Your task to perform on an android device: check out phone information Image 0: 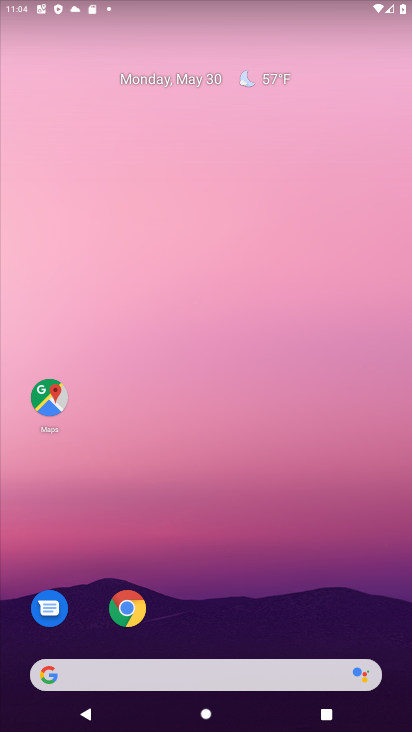
Step 0: drag from (268, 407) to (241, 35)
Your task to perform on an android device: check out phone information Image 1: 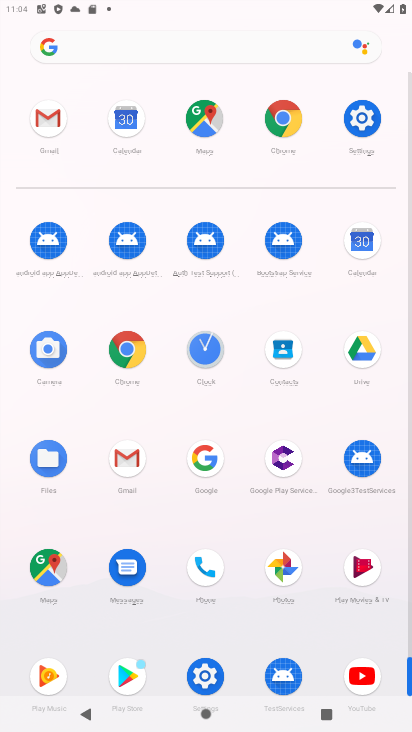
Step 1: drag from (19, 602) to (11, 249)
Your task to perform on an android device: check out phone information Image 2: 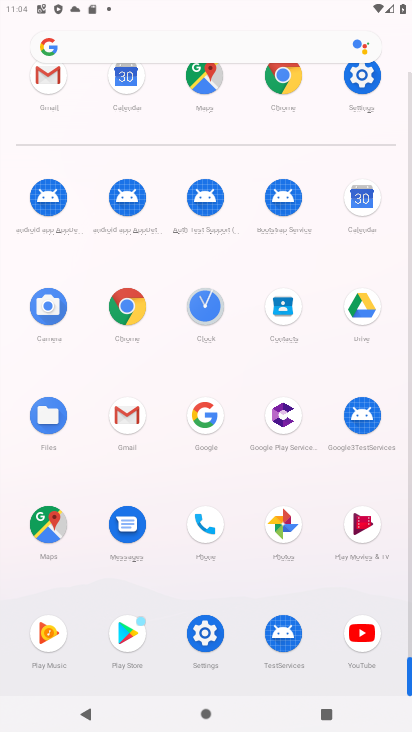
Step 2: click (205, 628)
Your task to perform on an android device: check out phone information Image 3: 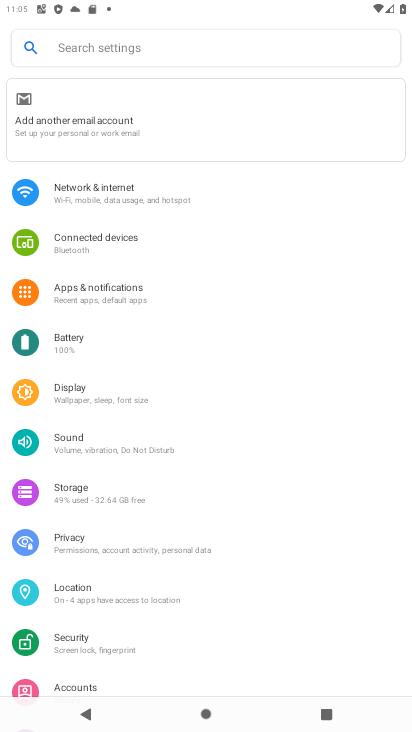
Step 3: drag from (287, 478) to (270, 201)
Your task to perform on an android device: check out phone information Image 4: 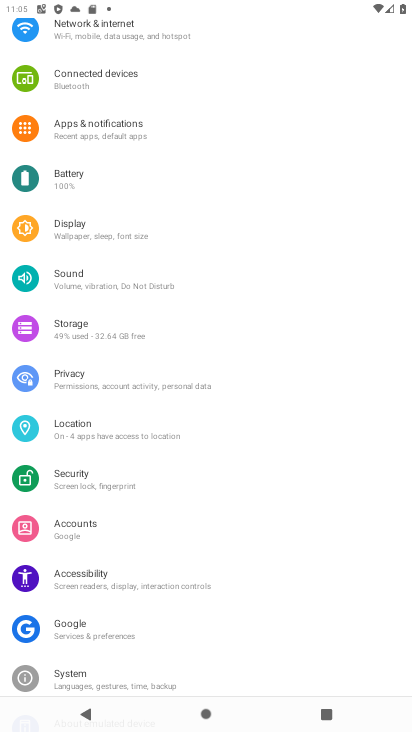
Step 4: drag from (297, 543) to (288, 68)
Your task to perform on an android device: check out phone information Image 5: 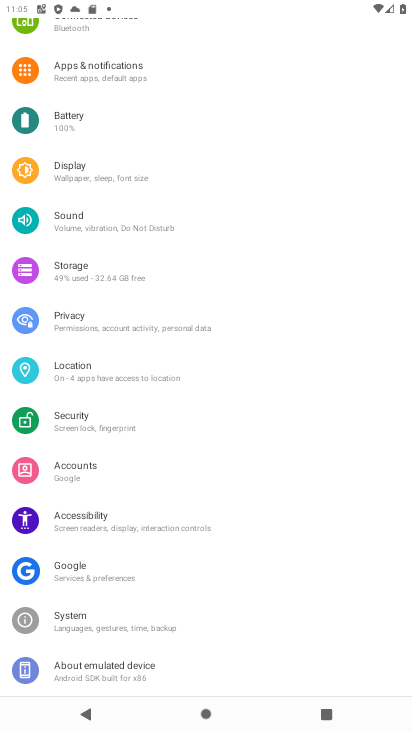
Step 5: drag from (299, 573) to (281, 96)
Your task to perform on an android device: check out phone information Image 6: 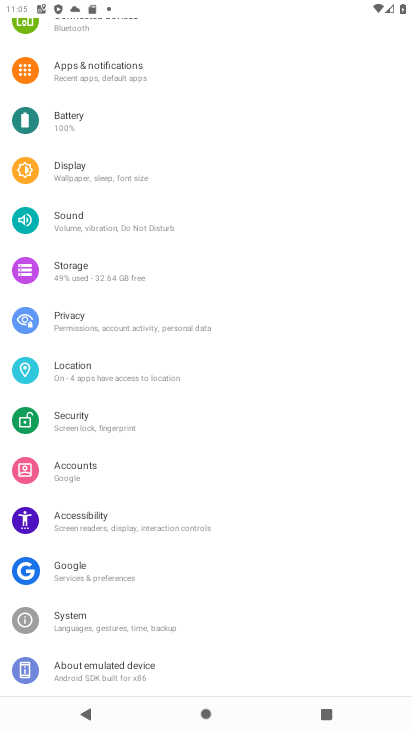
Step 6: click (171, 668)
Your task to perform on an android device: check out phone information Image 7: 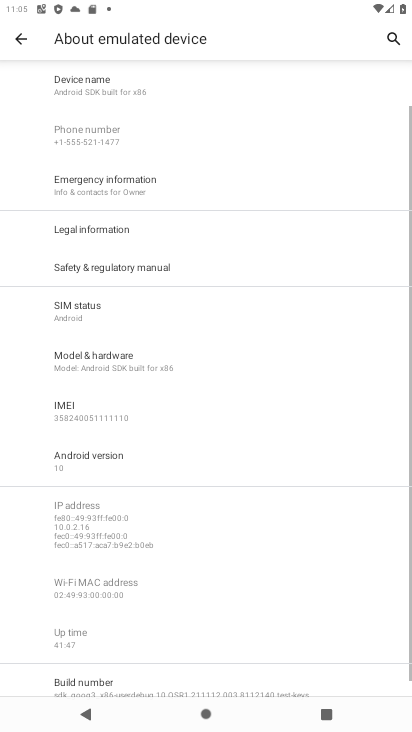
Step 7: task complete